Your task to perform on an android device: Open Android settings Image 0: 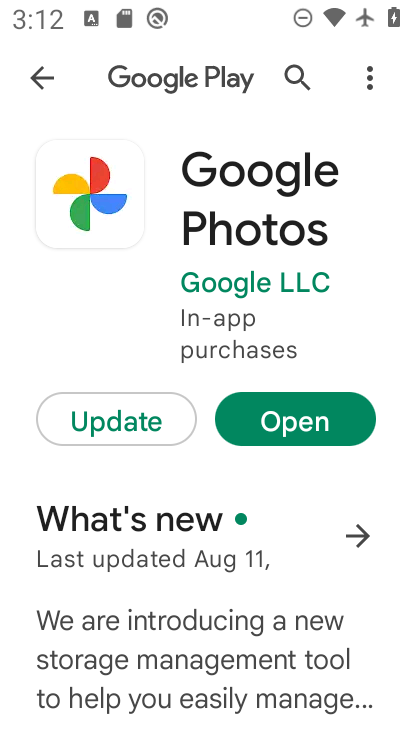
Step 0: press home button
Your task to perform on an android device: Open Android settings Image 1: 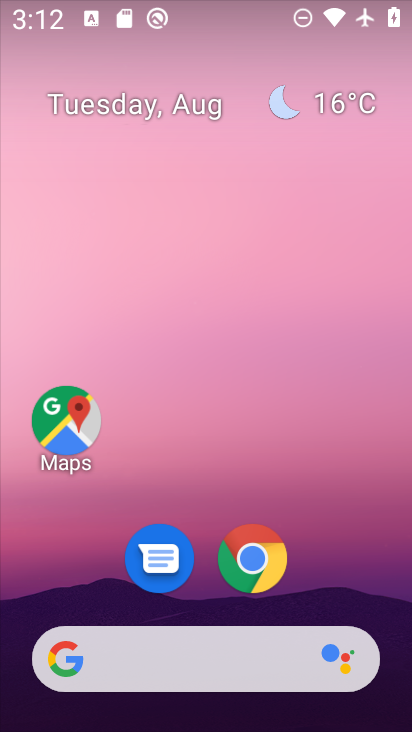
Step 1: drag from (209, 498) to (194, 64)
Your task to perform on an android device: Open Android settings Image 2: 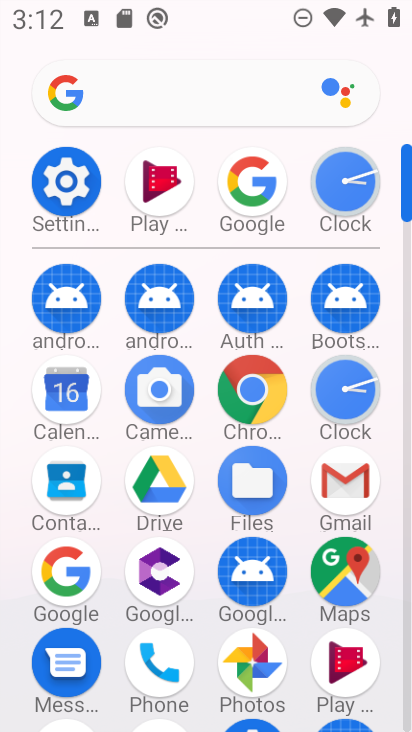
Step 2: click (76, 186)
Your task to perform on an android device: Open Android settings Image 3: 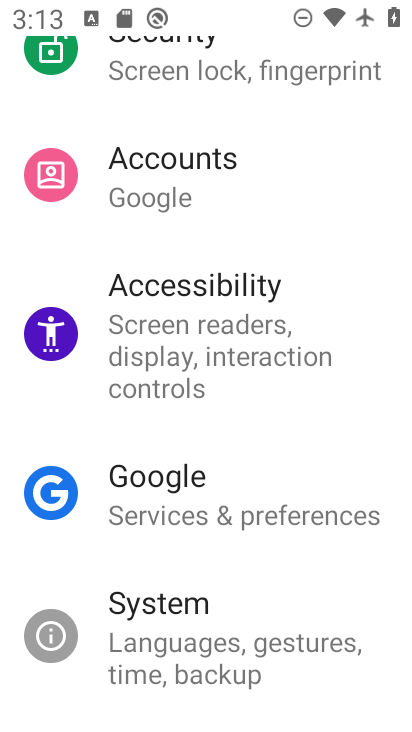
Step 3: task complete